Your task to perform on an android device: Open Maps and search for coffee Image 0: 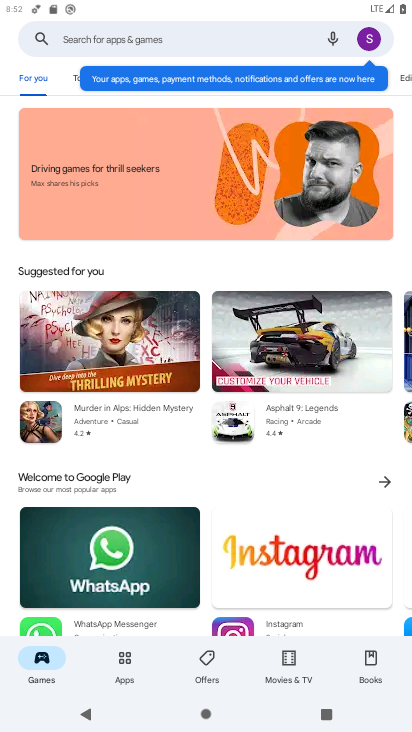
Step 0: press home button
Your task to perform on an android device: Open Maps and search for coffee Image 1: 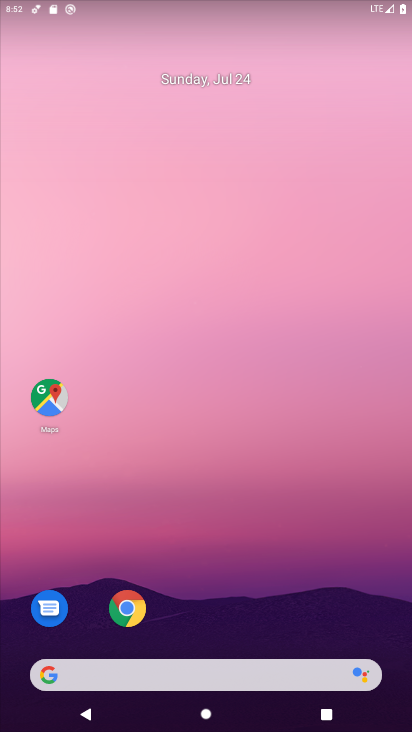
Step 1: click (46, 413)
Your task to perform on an android device: Open Maps and search for coffee Image 2: 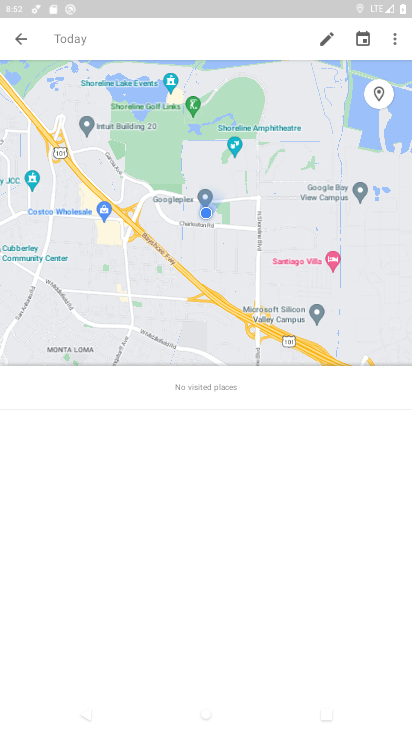
Step 2: click (12, 33)
Your task to perform on an android device: Open Maps and search for coffee Image 3: 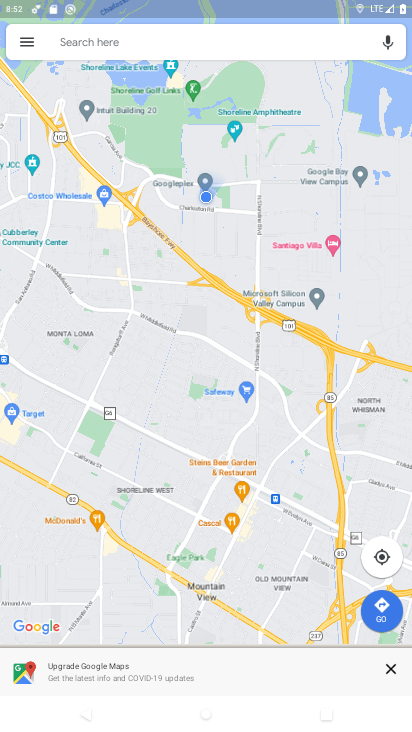
Step 3: click (190, 41)
Your task to perform on an android device: Open Maps and search for coffee Image 4: 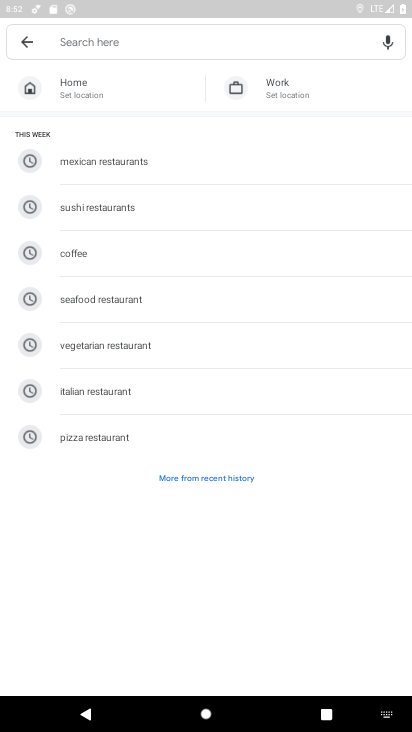
Step 4: type "coffee"
Your task to perform on an android device: Open Maps and search for coffee Image 5: 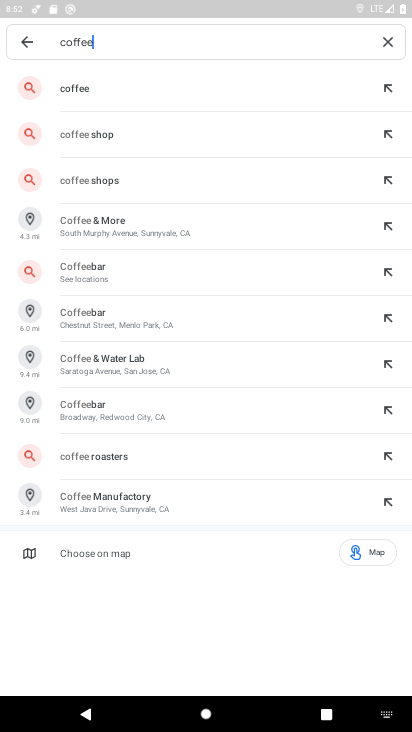
Step 5: click (143, 89)
Your task to perform on an android device: Open Maps and search for coffee Image 6: 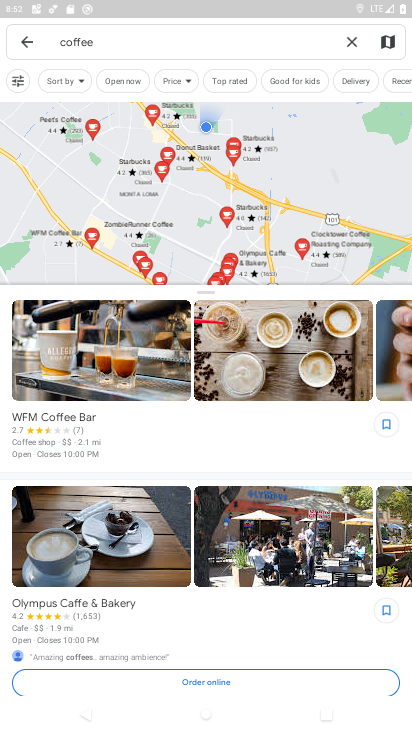
Step 6: task complete